Your task to perform on an android device: change keyboard looks Image 0: 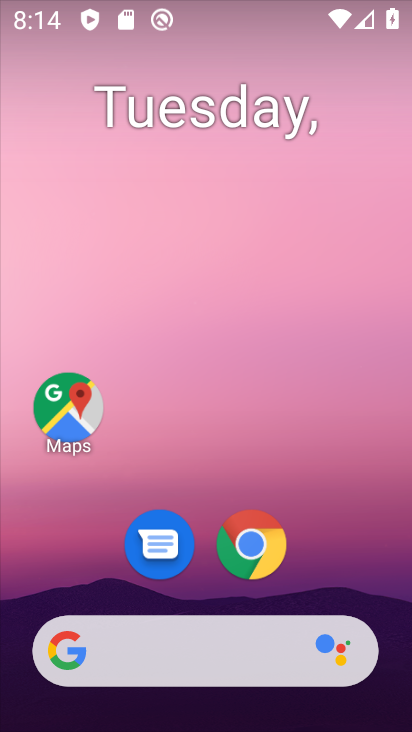
Step 0: drag from (314, 513) to (205, 19)
Your task to perform on an android device: change keyboard looks Image 1: 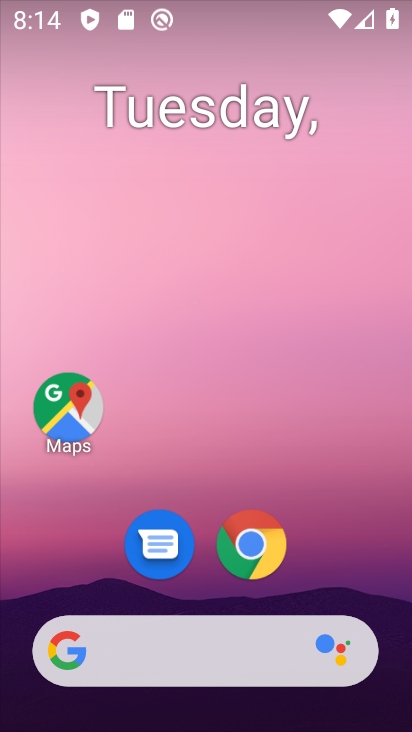
Step 1: drag from (257, 208) to (257, 168)
Your task to perform on an android device: change keyboard looks Image 2: 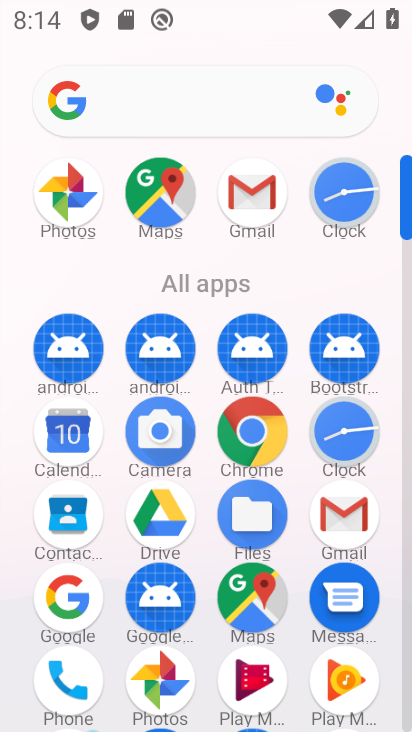
Step 2: drag from (267, 358) to (234, 153)
Your task to perform on an android device: change keyboard looks Image 3: 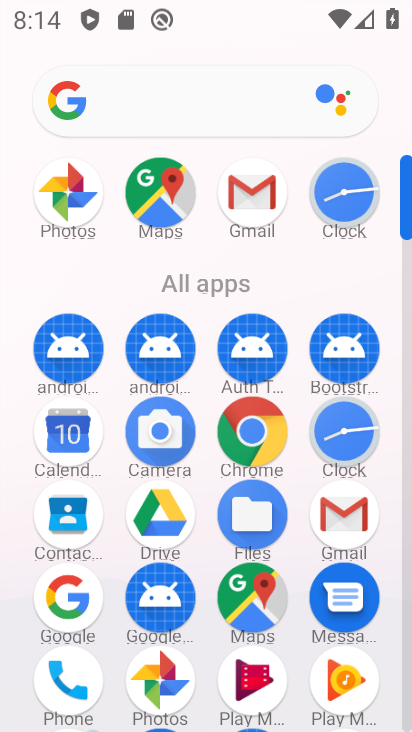
Step 3: drag from (216, 641) to (218, 246)
Your task to perform on an android device: change keyboard looks Image 4: 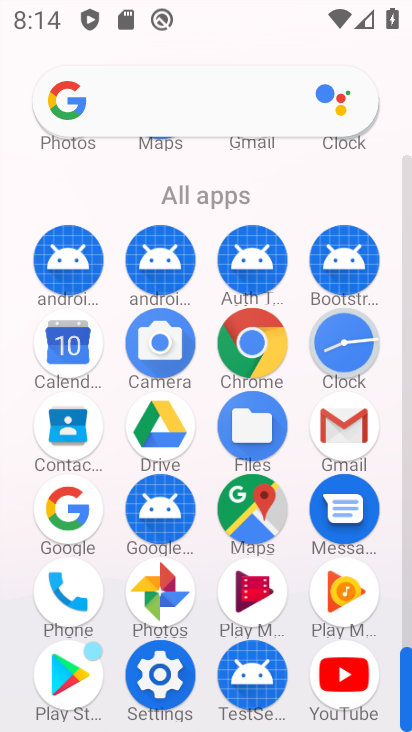
Step 4: drag from (199, 456) to (188, 241)
Your task to perform on an android device: change keyboard looks Image 5: 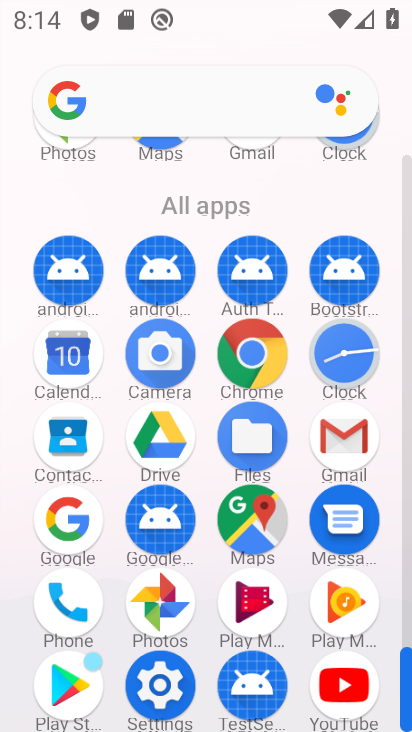
Step 5: drag from (216, 472) to (209, 162)
Your task to perform on an android device: change keyboard looks Image 6: 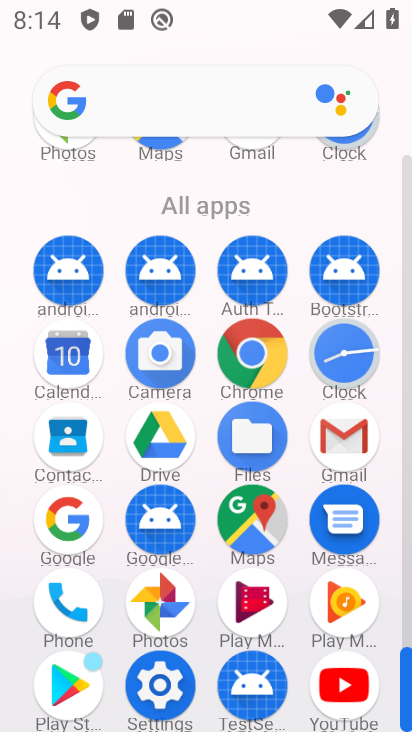
Step 6: click (161, 672)
Your task to perform on an android device: change keyboard looks Image 7: 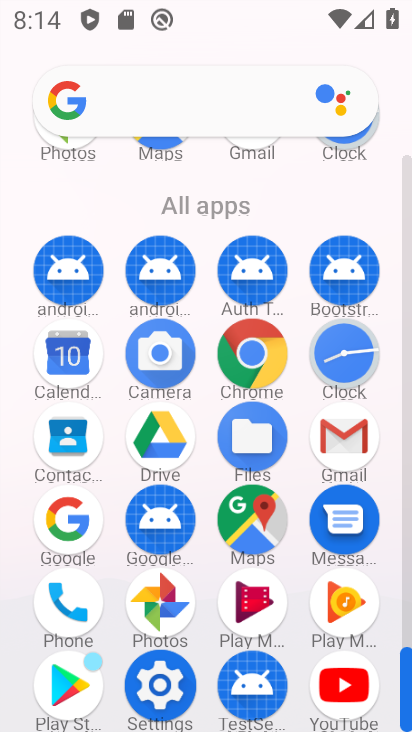
Step 7: click (161, 672)
Your task to perform on an android device: change keyboard looks Image 8: 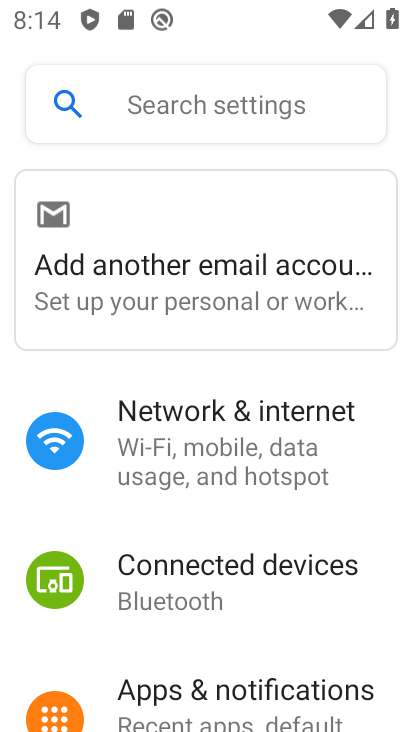
Step 8: drag from (206, 442) to (184, 152)
Your task to perform on an android device: change keyboard looks Image 9: 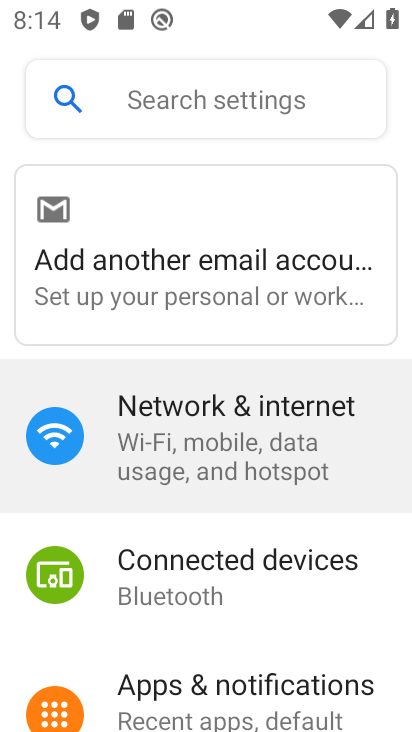
Step 9: drag from (224, 478) to (285, 159)
Your task to perform on an android device: change keyboard looks Image 10: 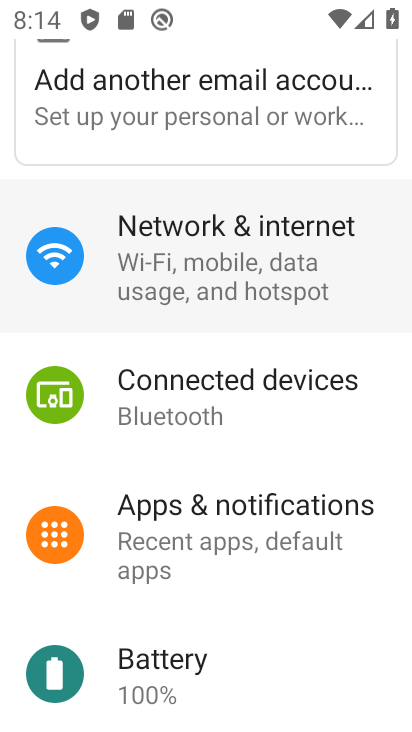
Step 10: drag from (260, 470) to (246, 177)
Your task to perform on an android device: change keyboard looks Image 11: 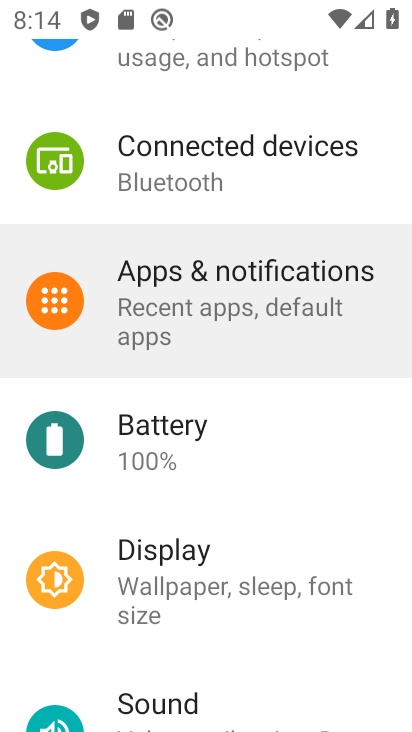
Step 11: drag from (215, 518) to (166, 134)
Your task to perform on an android device: change keyboard looks Image 12: 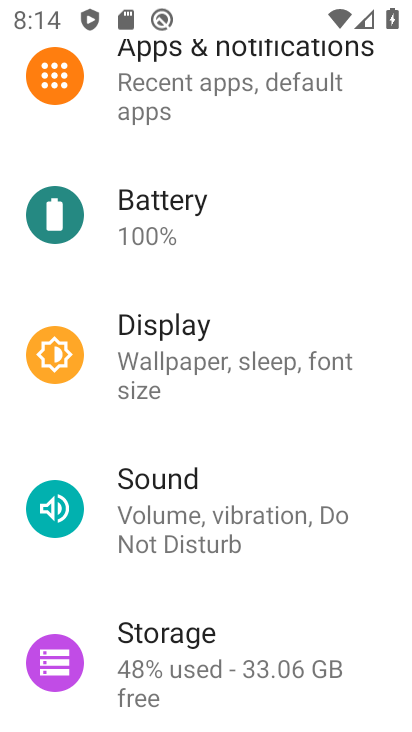
Step 12: drag from (208, 553) to (196, 271)
Your task to perform on an android device: change keyboard looks Image 13: 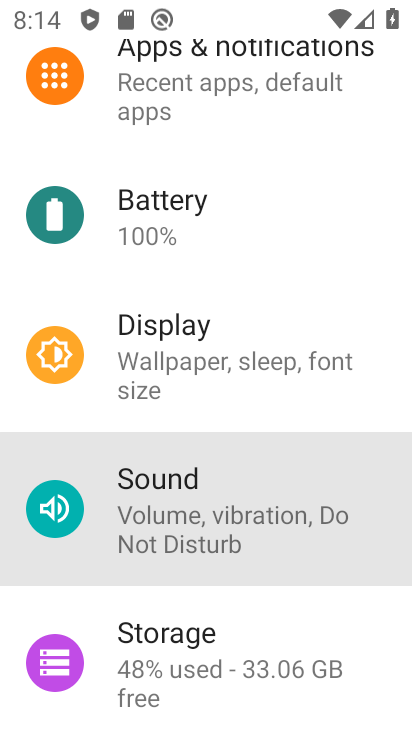
Step 13: drag from (221, 512) to (198, 189)
Your task to perform on an android device: change keyboard looks Image 14: 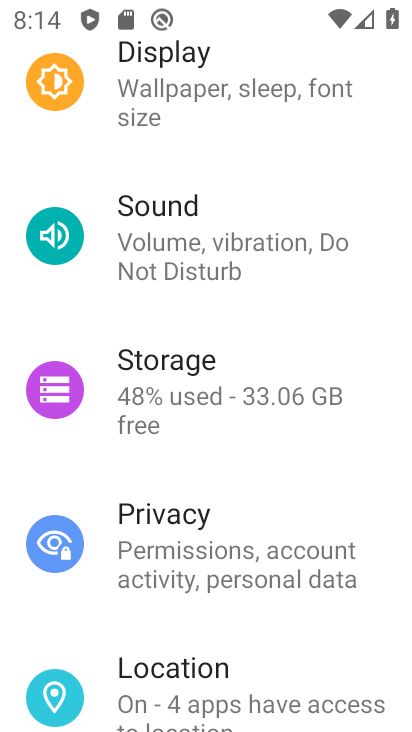
Step 14: drag from (175, 559) to (82, 238)
Your task to perform on an android device: change keyboard looks Image 15: 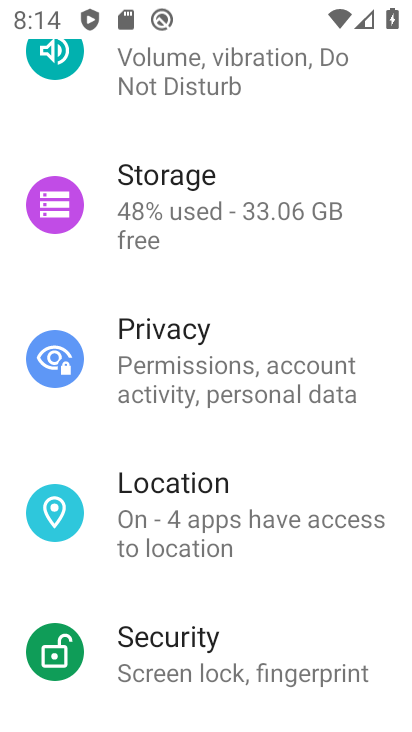
Step 15: drag from (190, 561) to (190, 306)
Your task to perform on an android device: change keyboard looks Image 16: 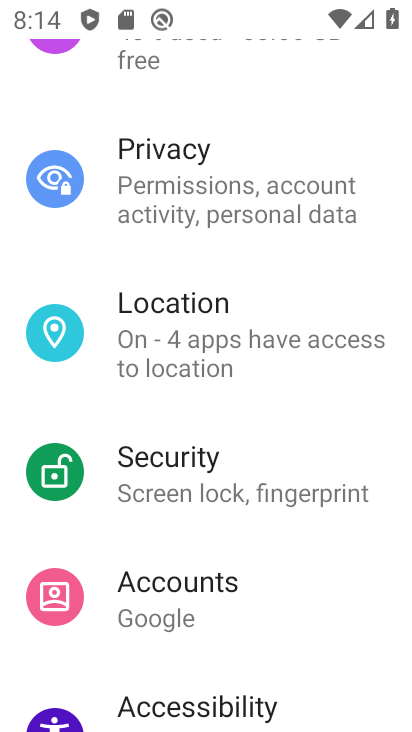
Step 16: drag from (213, 321) to (213, 282)
Your task to perform on an android device: change keyboard looks Image 17: 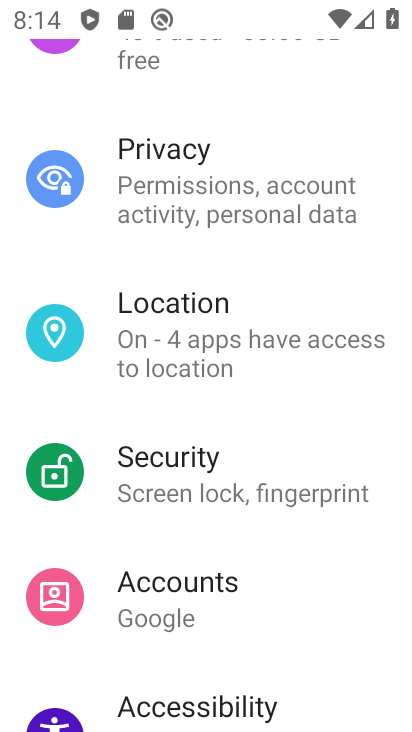
Step 17: drag from (190, 563) to (156, 219)
Your task to perform on an android device: change keyboard looks Image 18: 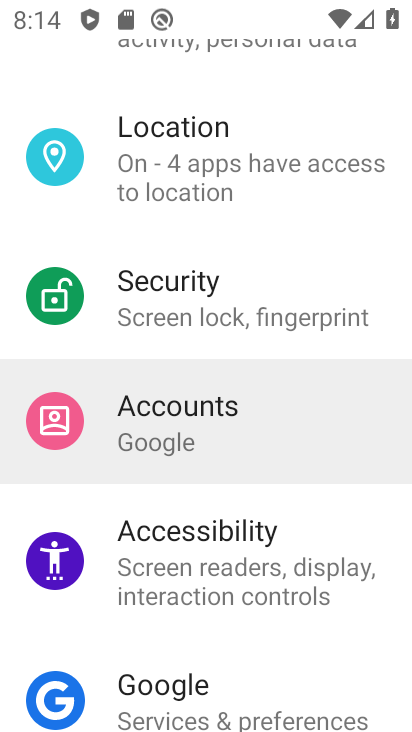
Step 18: drag from (154, 433) to (141, 230)
Your task to perform on an android device: change keyboard looks Image 19: 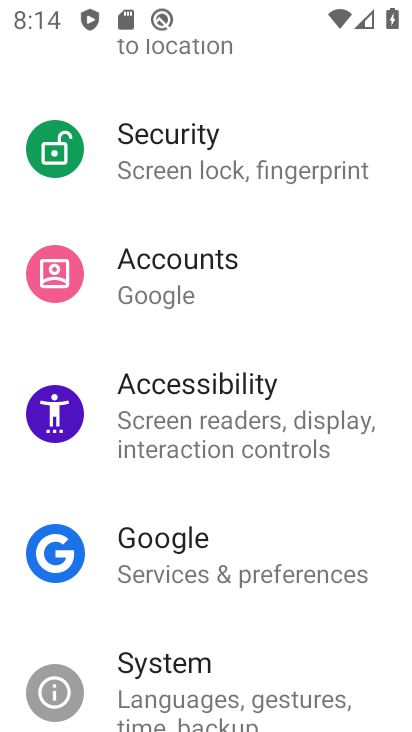
Step 19: click (170, 673)
Your task to perform on an android device: change keyboard looks Image 20: 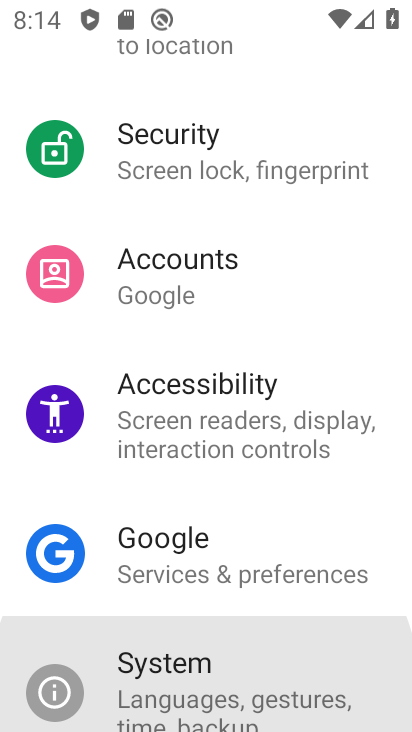
Step 20: click (170, 674)
Your task to perform on an android device: change keyboard looks Image 21: 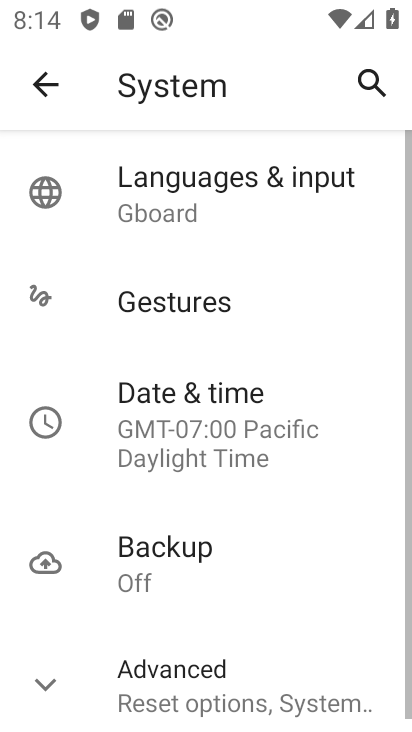
Step 21: click (180, 197)
Your task to perform on an android device: change keyboard looks Image 22: 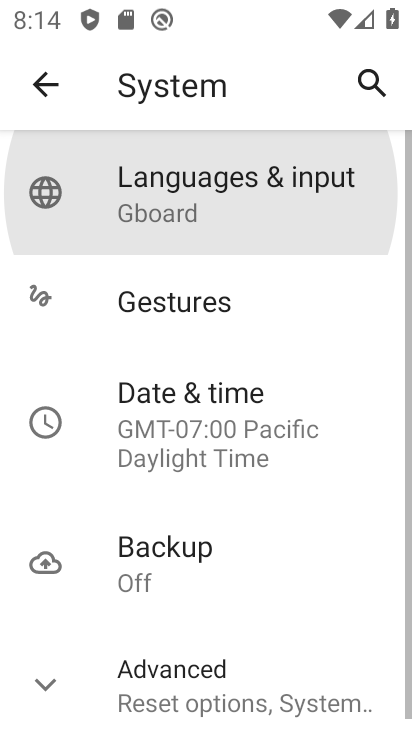
Step 22: click (180, 197)
Your task to perform on an android device: change keyboard looks Image 23: 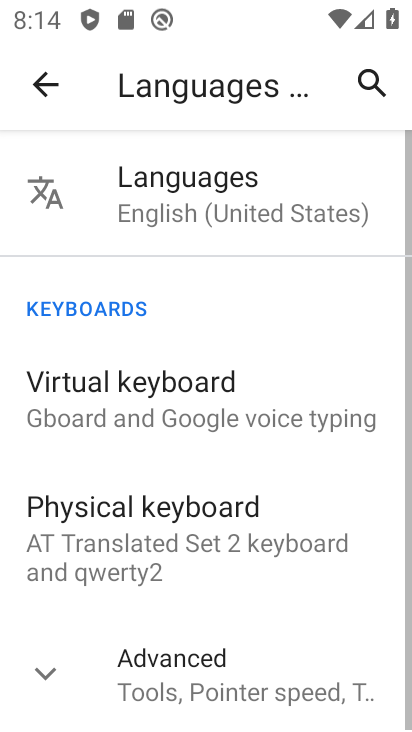
Step 23: click (130, 413)
Your task to perform on an android device: change keyboard looks Image 24: 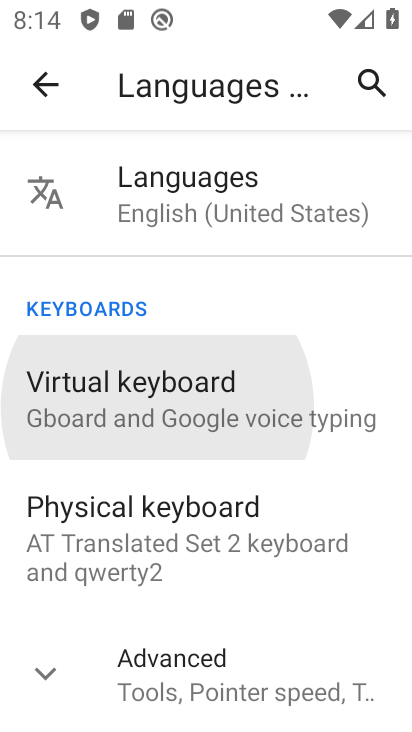
Step 24: click (130, 413)
Your task to perform on an android device: change keyboard looks Image 25: 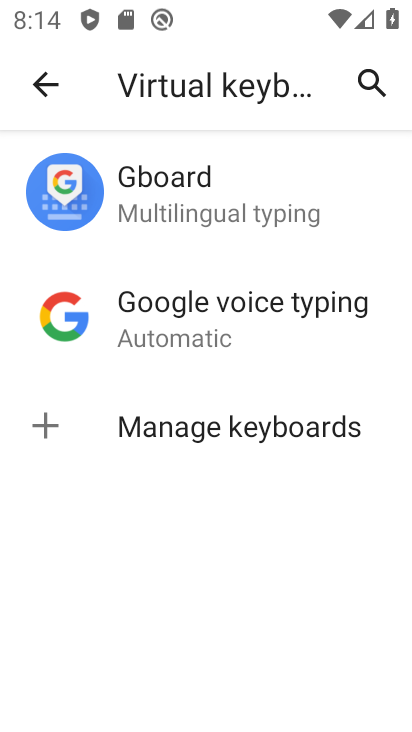
Step 25: click (165, 204)
Your task to perform on an android device: change keyboard looks Image 26: 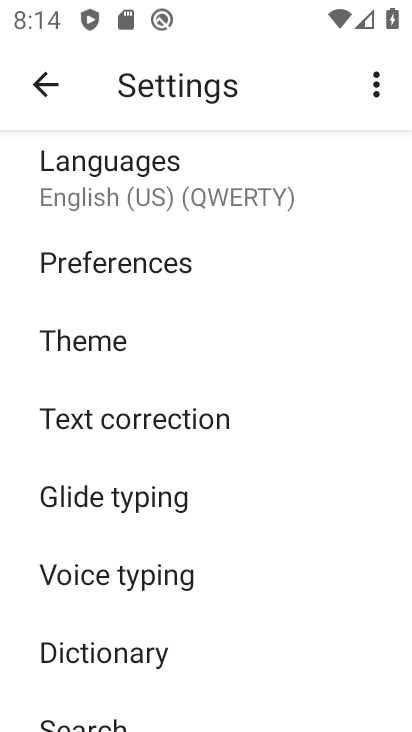
Step 26: click (81, 339)
Your task to perform on an android device: change keyboard looks Image 27: 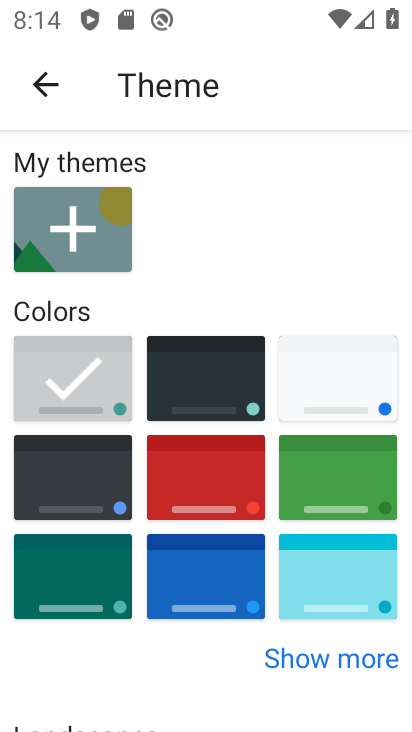
Step 27: click (75, 468)
Your task to perform on an android device: change keyboard looks Image 28: 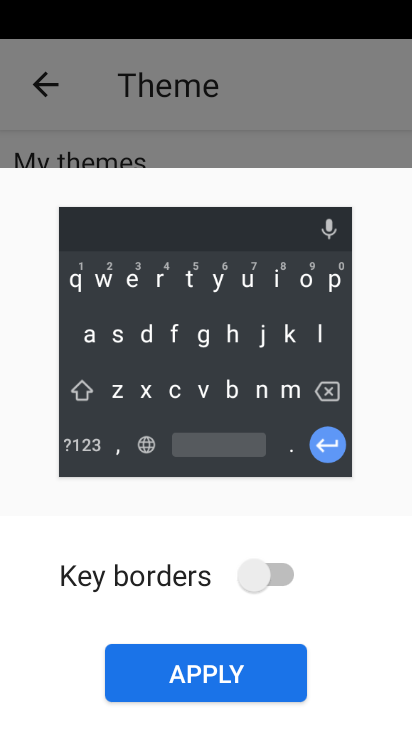
Step 28: click (221, 688)
Your task to perform on an android device: change keyboard looks Image 29: 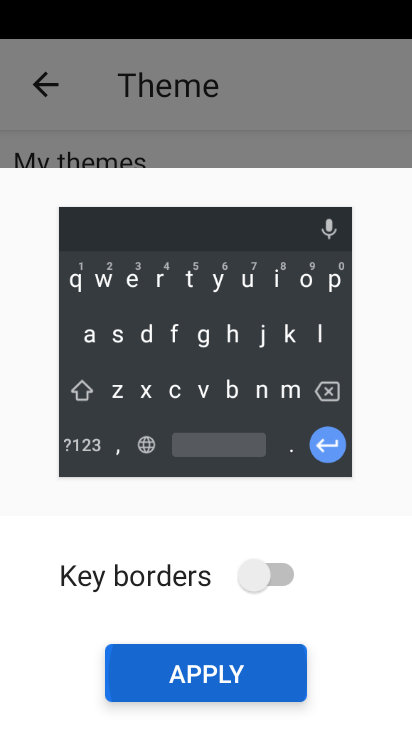
Step 29: click (216, 678)
Your task to perform on an android device: change keyboard looks Image 30: 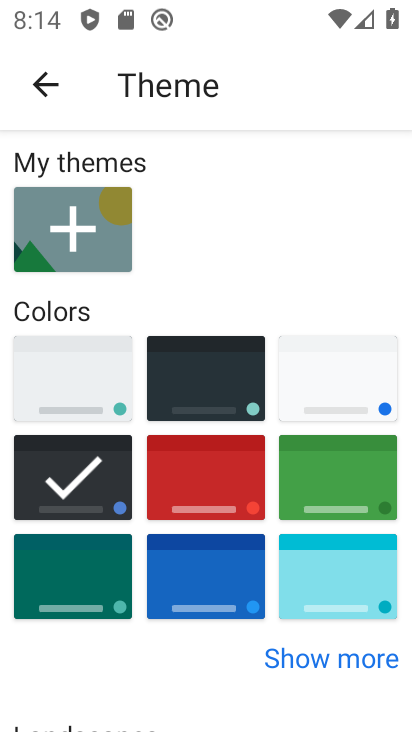
Step 30: click (186, 480)
Your task to perform on an android device: change keyboard looks Image 31: 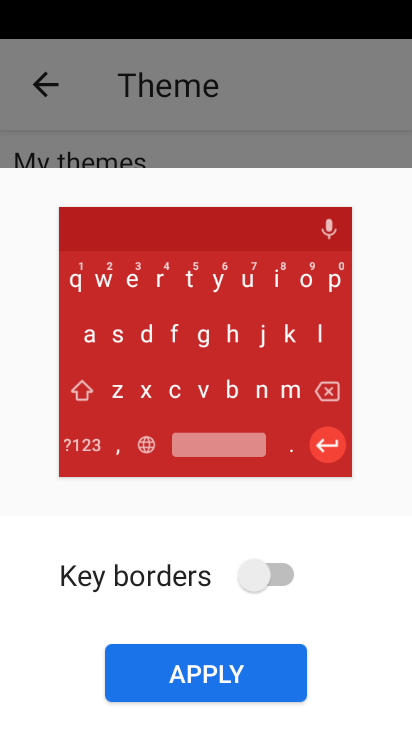
Step 31: click (207, 688)
Your task to perform on an android device: change keyboard looks Image 32: 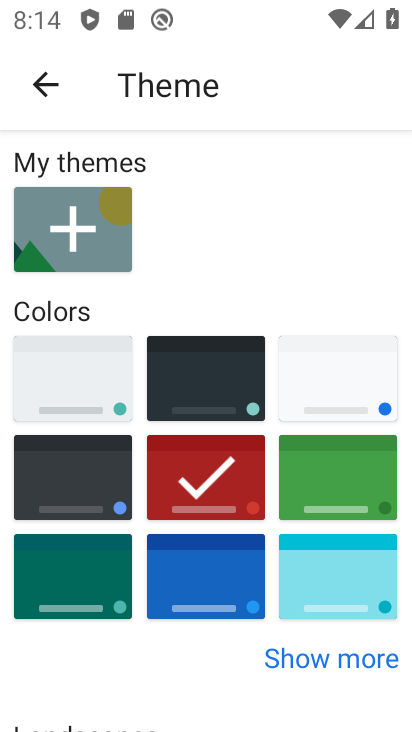
Step 32: task complete